Your task to perform on an android device: Set the phone to "Do not disturb". Image 0: 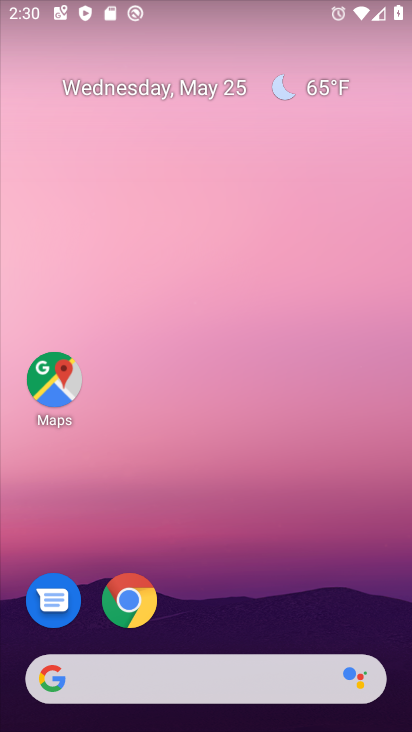
Step 0: drag from (289, 9) to (259, 485)
Your task to perform on an android device: Set the phone to "Do not disturb". Image 1: 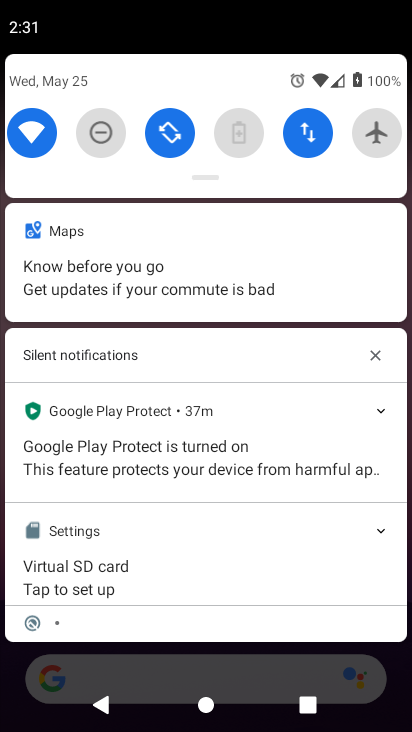
Step 1: click (104, 142)
Your task to perform on an android device: Set the phone to "Do not disturb". Image 2: 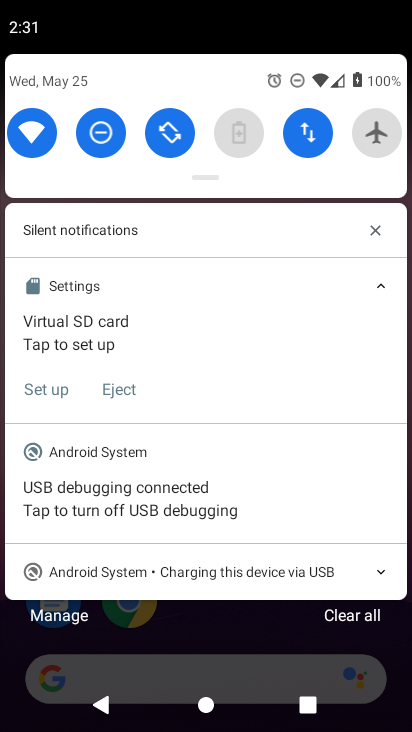
Step 2: task complete